Your task to perform on an android device: Go to ESPN.com Image 0: 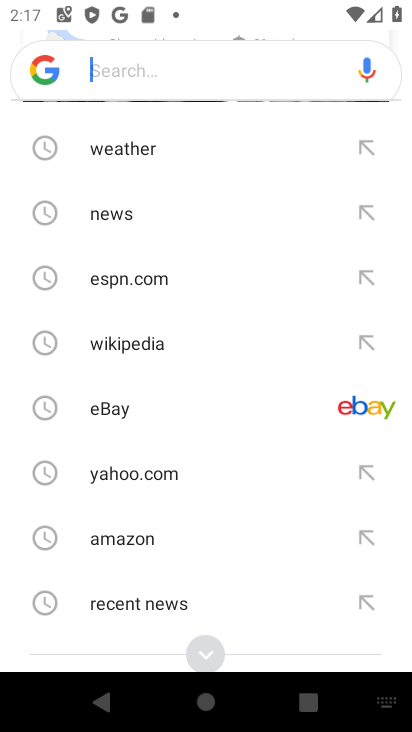
Step 0: press back button
Your task to perform on an android device: Go to ESPN.com Image 1: 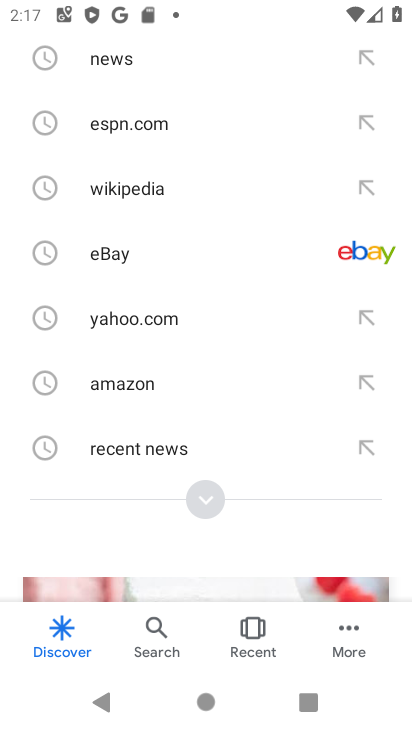
Step 1: press back button
Your task to perform on an android device: Go to ESPN.com Image 2: 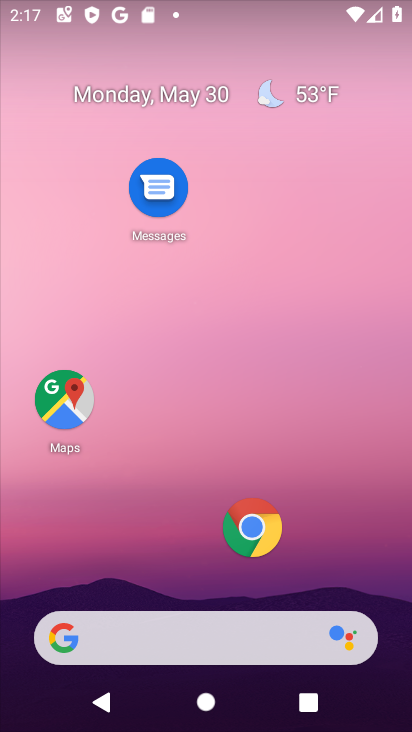
Step 2: drag from (192, 555) to (240, 128)
Your task to perform on an android device: Go to ESPN.com Image 3: 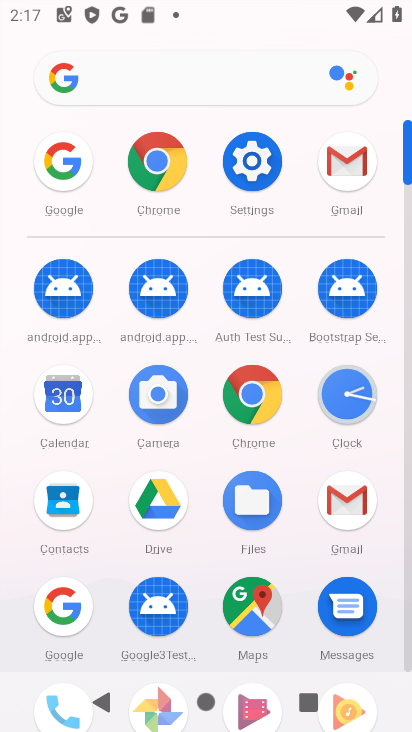
Step 3: click (242, 418)
Your task to perform on an android device: Go to ESPN.com Image 4: 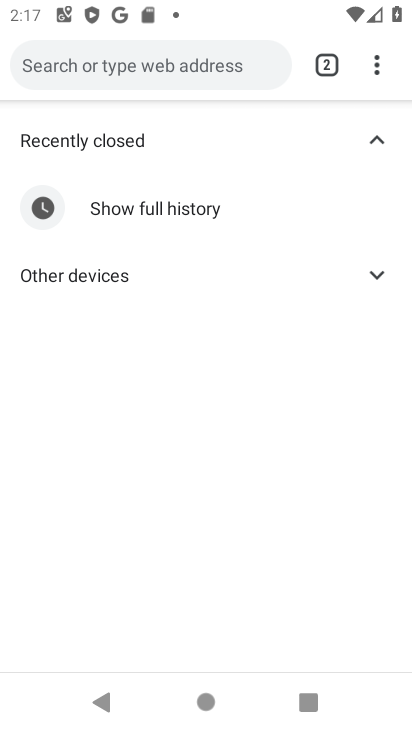
Step 4: click (192, 77)
Your task to perform on an android device: Go to ESPN.com Image 5: 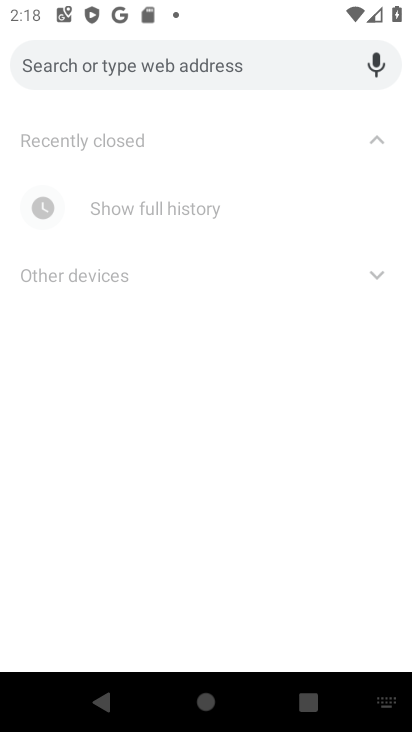
Step 5: type "ESPN.com"
Your task to perform on an android device: Go to ESPN.com Image 6: 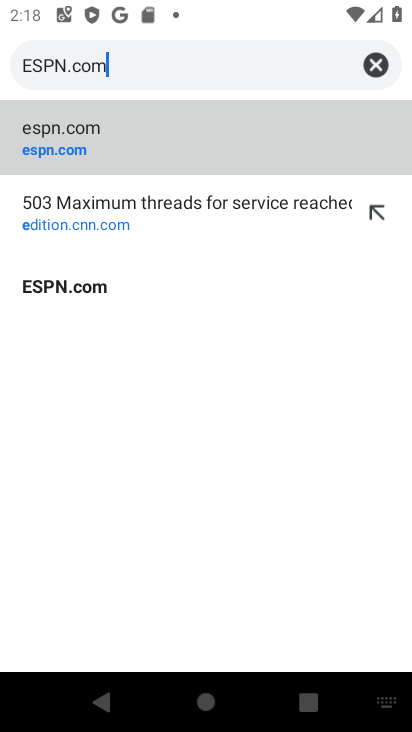
Step 6: type ""
Your task to perform on an android device: Go to ESPN.com Image 7: 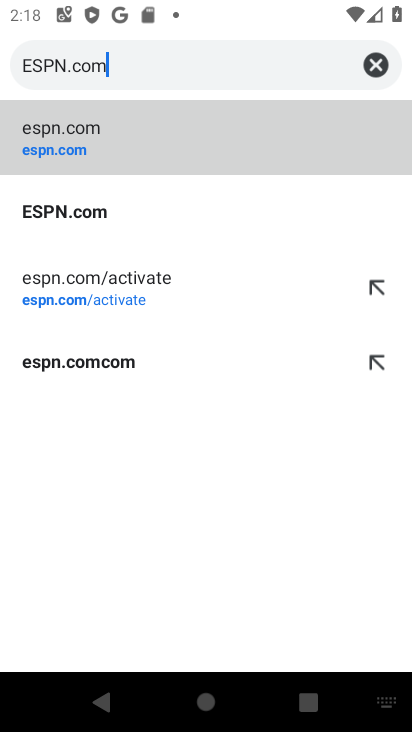
Step 7: click (126, 145)
Your task to perform on an android device: Go to ESPN.com Image 8: 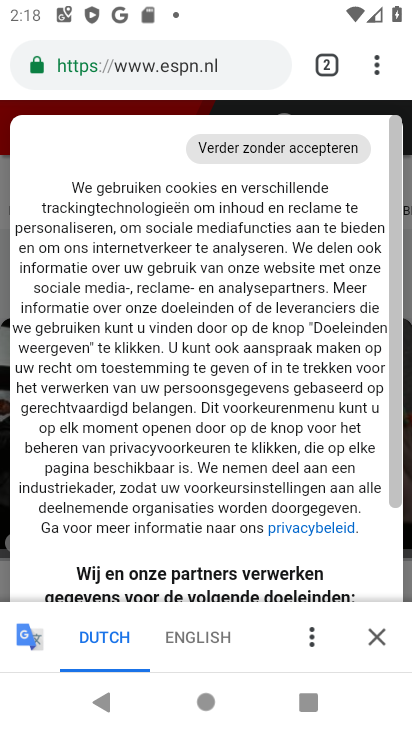
Step 8: task complete